Your task to perform on an android device: check out phone information Image 0: 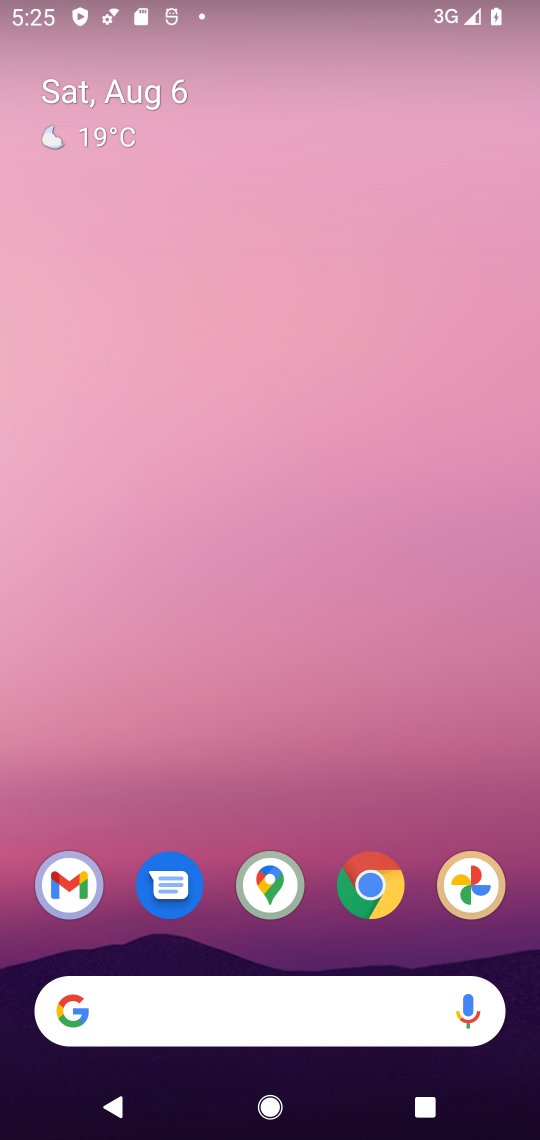
Step 0: drag from (436, 933) to (538, 632)
Your task to perform on an android device: check out phone information Image 1: 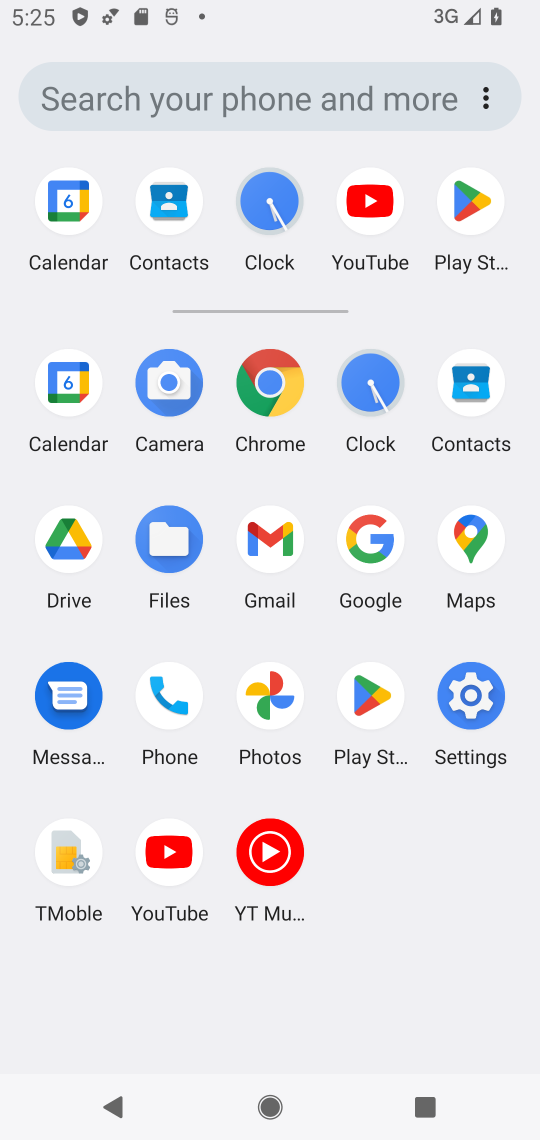
Step 1: click (485, 710)
Your task to perform on an android device: check out phone information Image 2: 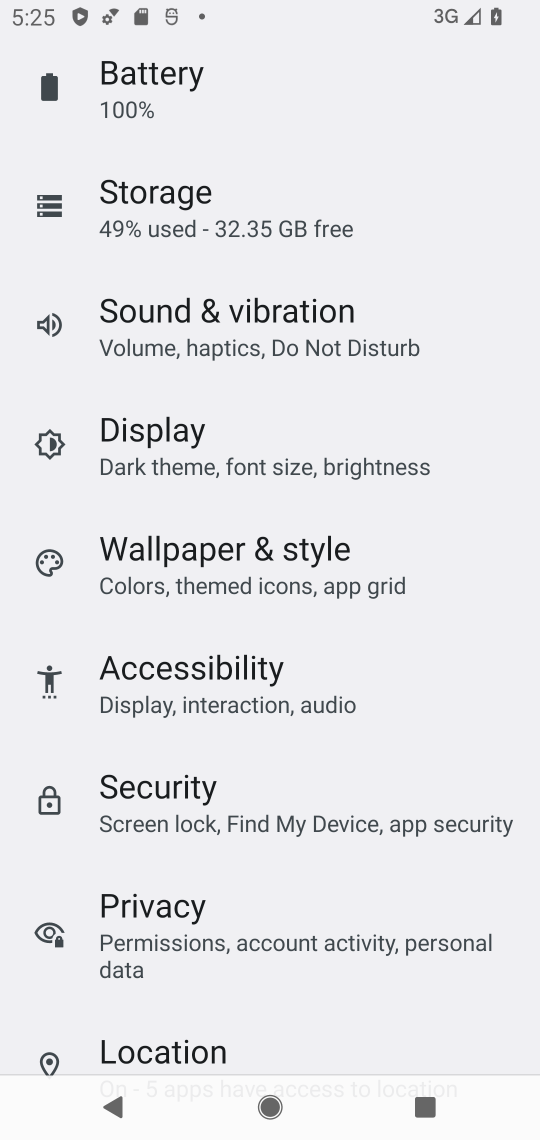
Step 2: task complete